Your task to perform on an android device: Open calendar and show me the first week of next month Image 0: 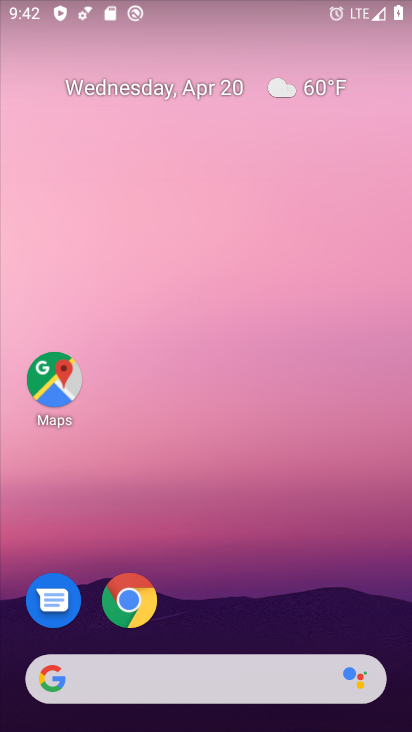
Step 0: drag from (217, 651) to (225, 18)
Your task to perform on an android device: Open calendar and show me the first week of next month Image 1: 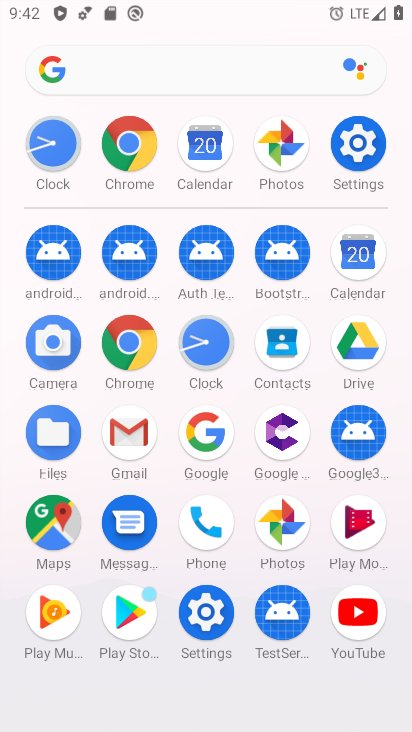
Step 1: click (366, 256)
Your task to perform on an android device: Open calendar and show me the first week of next month Image 2: 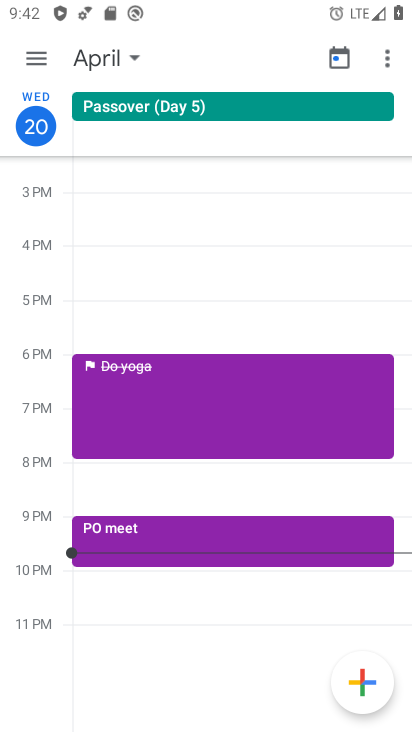
Step 2: click (42, 63)
Your task to perform on an android device: Open calendar and show me the first week of next month Image 3: 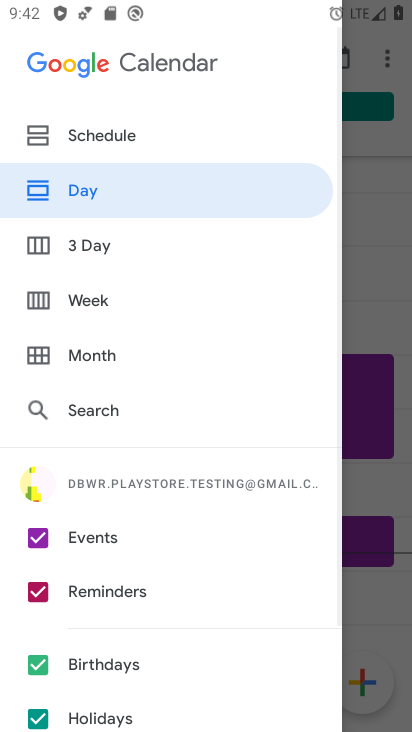
Step 3: click (92, 311)
Your task to perform on an android device: Open calendar and show me the first week of next month Image 4: 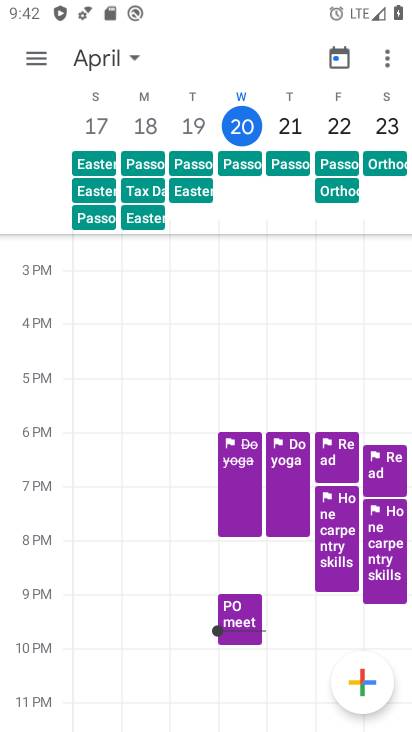
Step 4: task complete